Your task to perform on an android device: View the shopping cart on costco.com. Search for logitech g pro on costco.com, select the first entry, add it to the cart, then select checkout. Image 0: 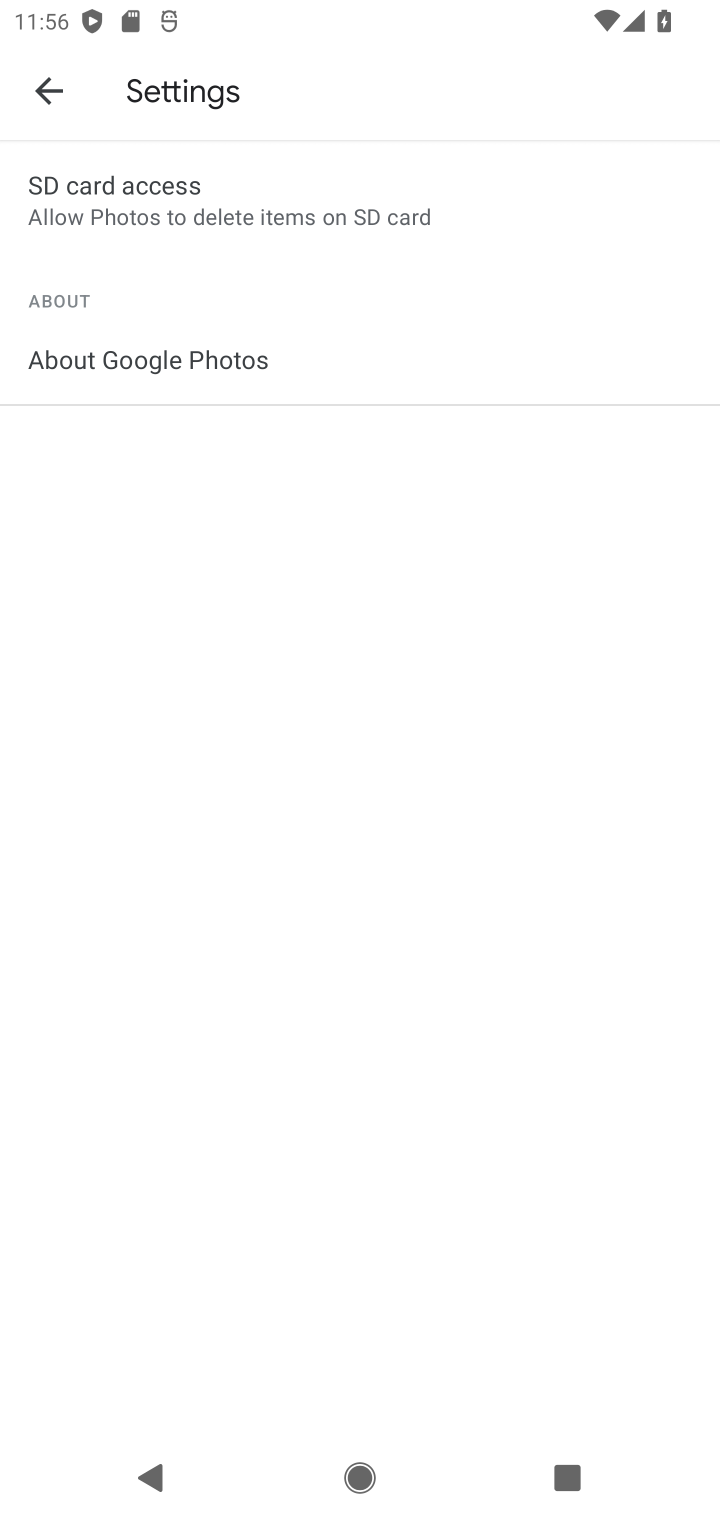
Step 0: press home button
Your task to perform on an android device: View the shopping cart on costco.com. Search for logitech g pro on costco.com, select the first entry, add it to the cart, then select checkout. Image 1: 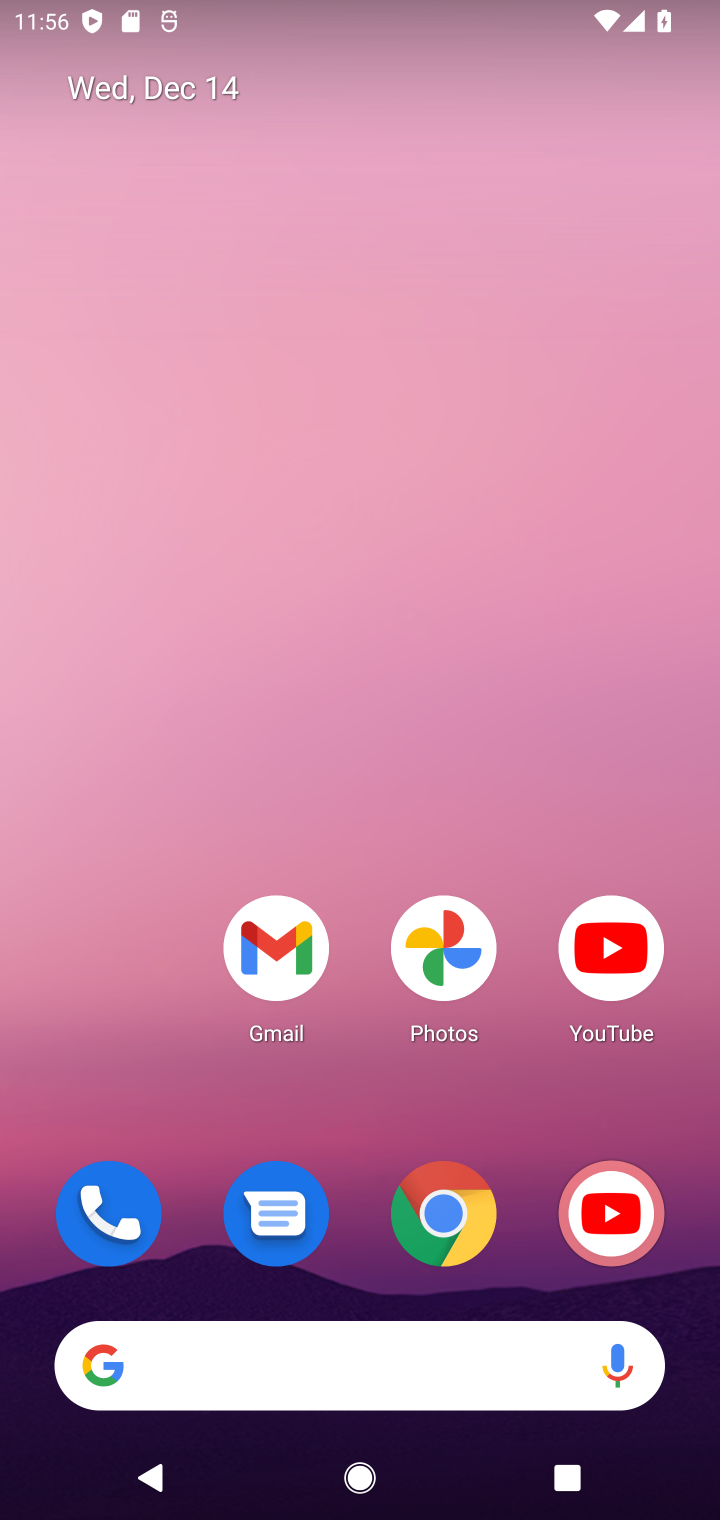
Step 1: click (456, 1211)
Your task to perform on an android device: View the shopping cart on costco.com. Search for logitech g pro on costco.com, select the first entry, add it to the cart, then select checkout. Image 2: 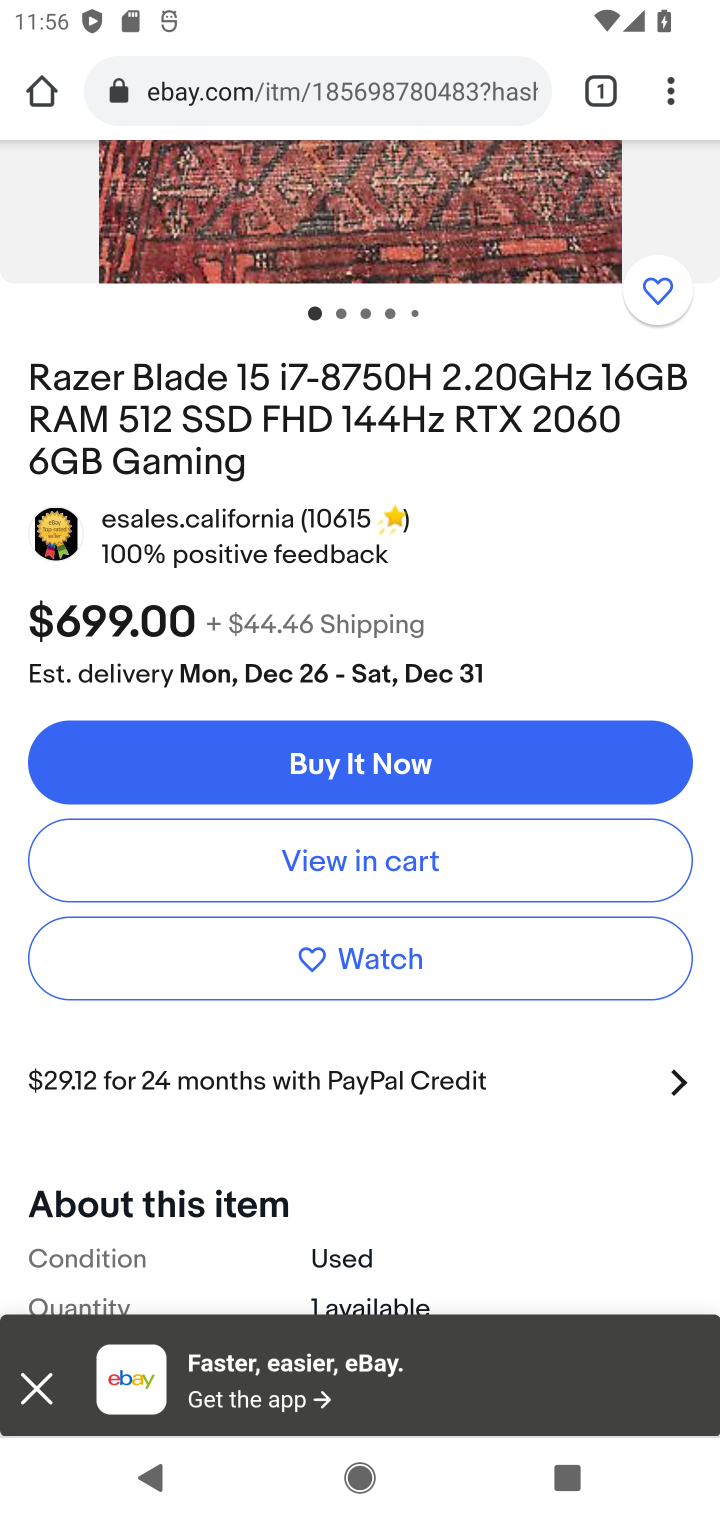
Step 2: click (278, 86)
Your task to perform on an android device: View the shopping cart on costco.com. Search for logitech g pro on costco.com, select the first entry, add it to the cart, then select checkout. Image 3: 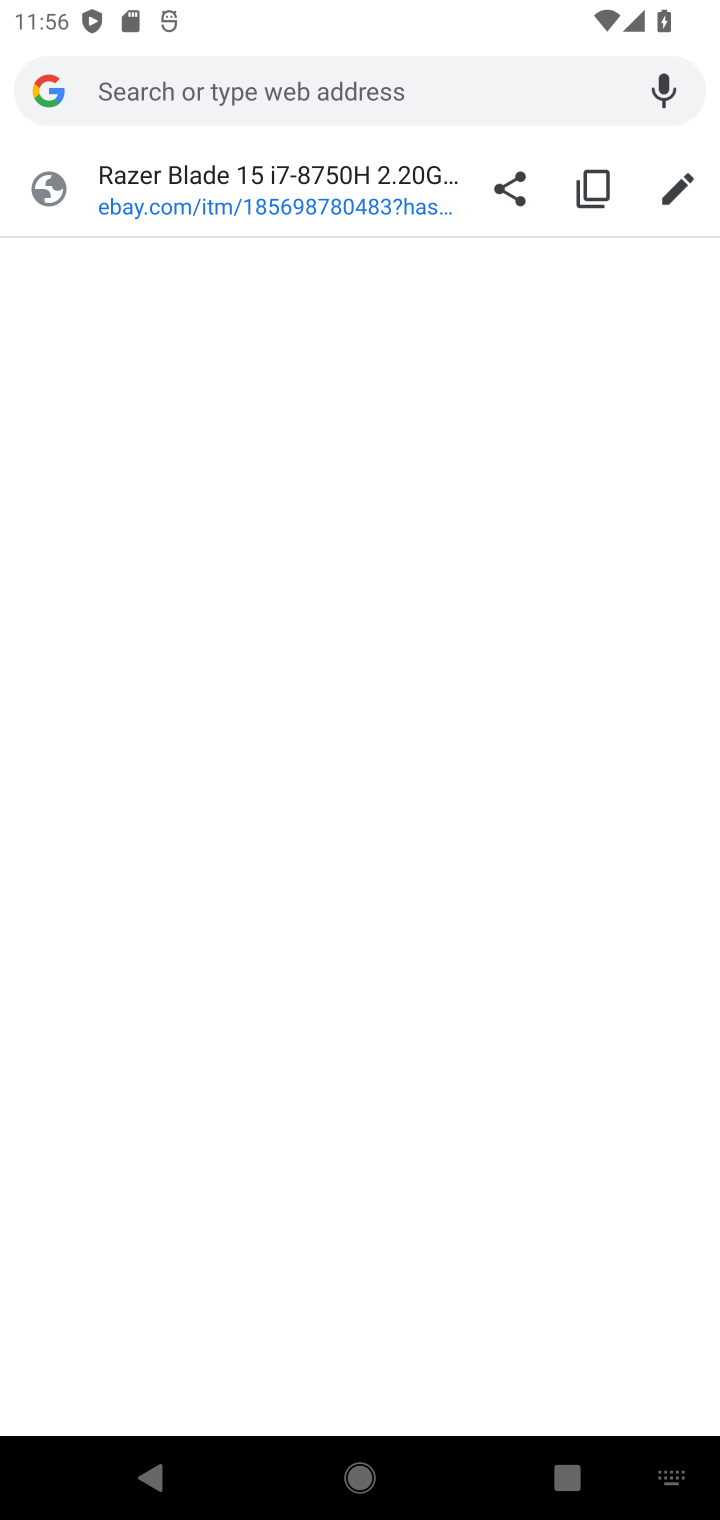
Step 3: type "costco"
Your task to perform on an android device: View the shopping cart on costco.com. Search for logitech g pro on costco.com, select the first entry, add it to the cart, then select checkout. Image 4: 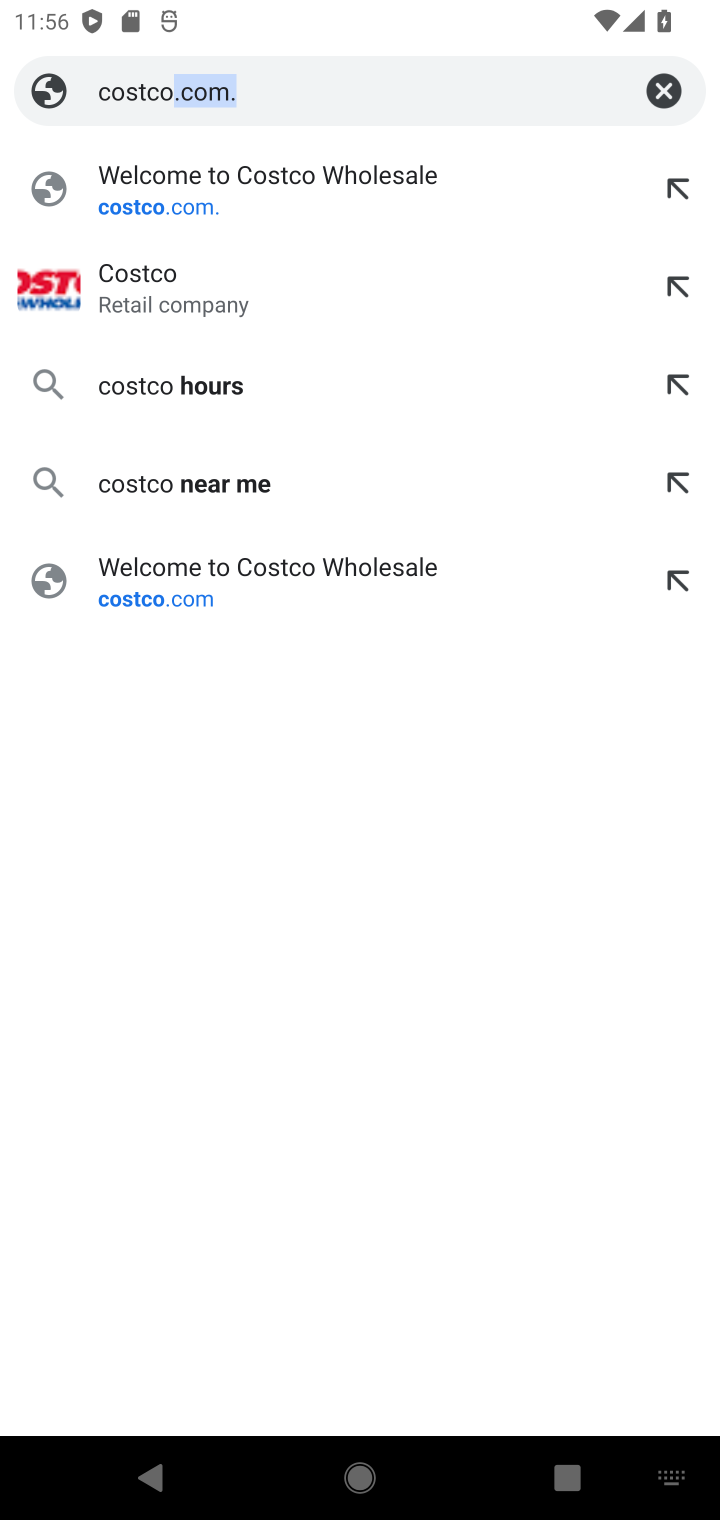
Step 4: click (175, 161)
Your task to perform on an android device: View the shopping cart on costco.com. Search for logitech g pro on costco.com, select the first entry, add it to the cart, then select checkout. Image 5: 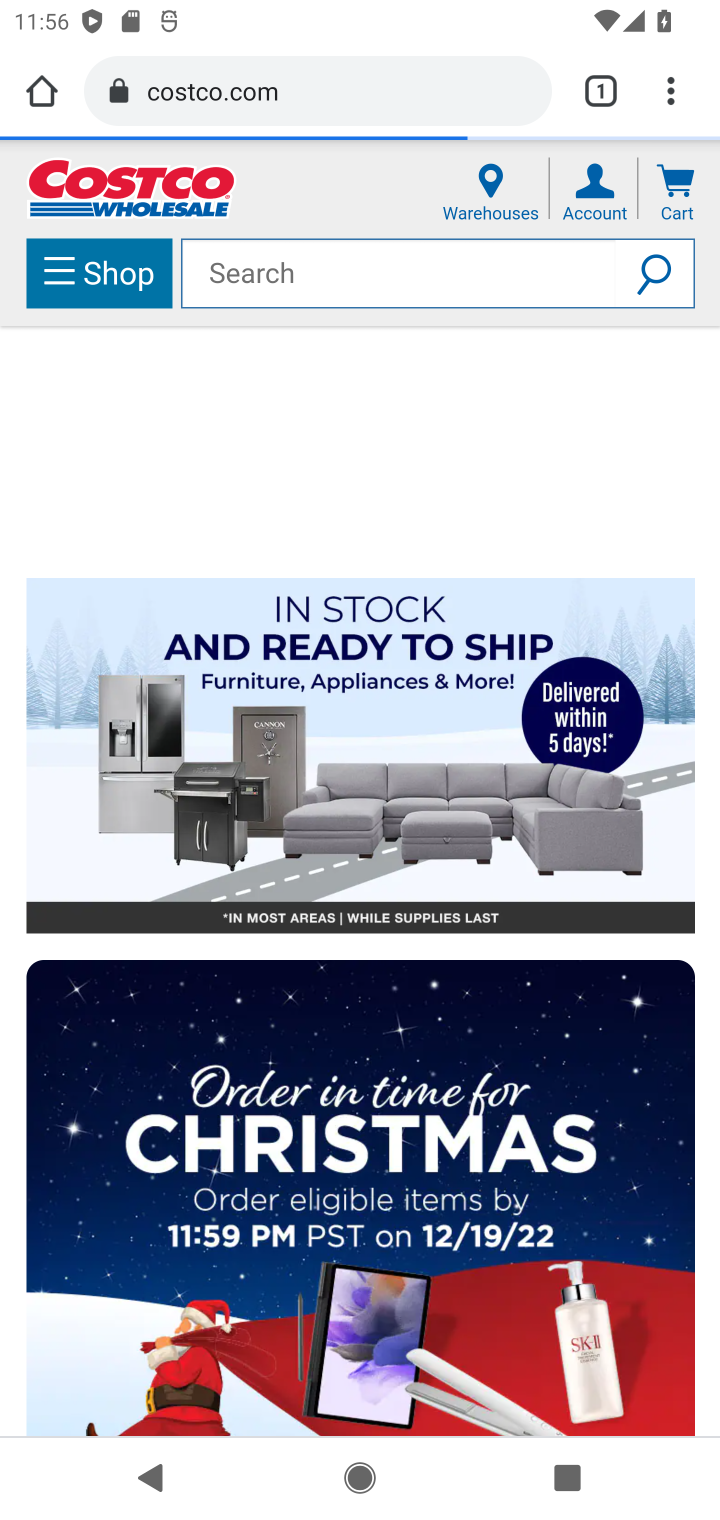
Step 5: click (361, 279)
Your task to perform on an android device: View the shopping cart on costco.com. Search for logitech g pro on costco.com, select the first entry, add it to the cart, then select checkout. Image 6: 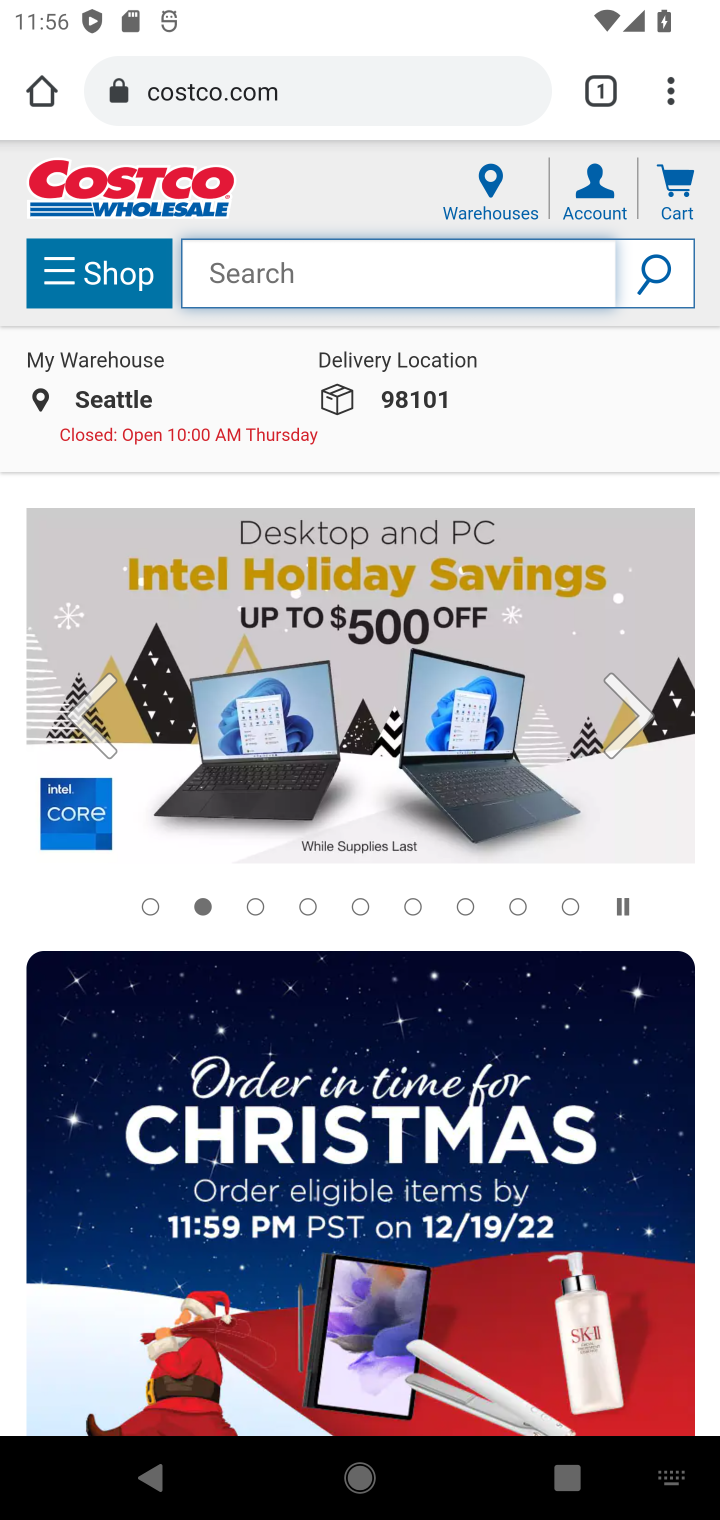
Step 6: type "logitech gpro"
Your task to perform on an android device: View the shopping cart on costco.com. Search for logitech g pro on costco.com, select the first entry, add it to the cart, then select checkout. Image 7: 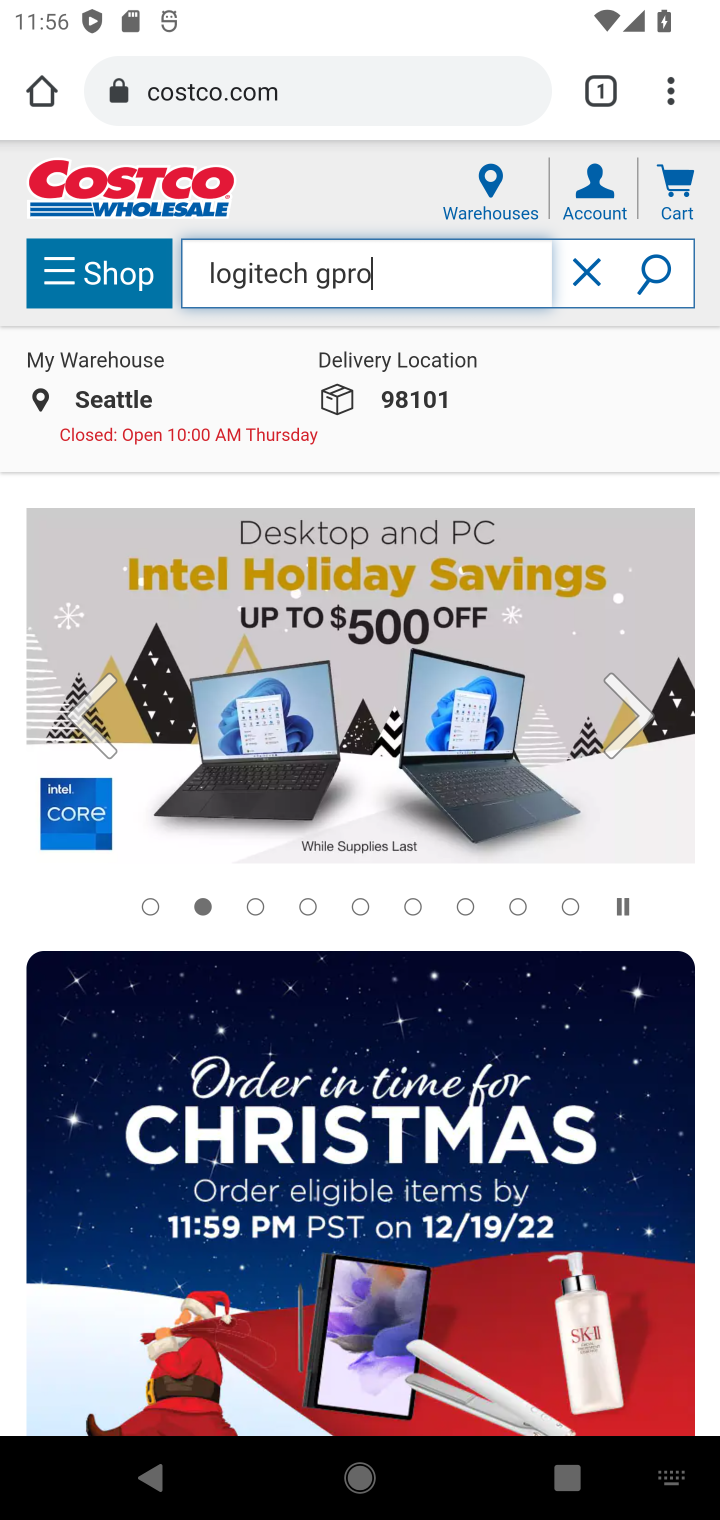
Step 7: click (639, 276)
Your task to perform on an android device: View the shopping cart on costco.com. Search for logitech g pro on costco.com, select the first entry, add it to the cart, then select checkout. Image 8: 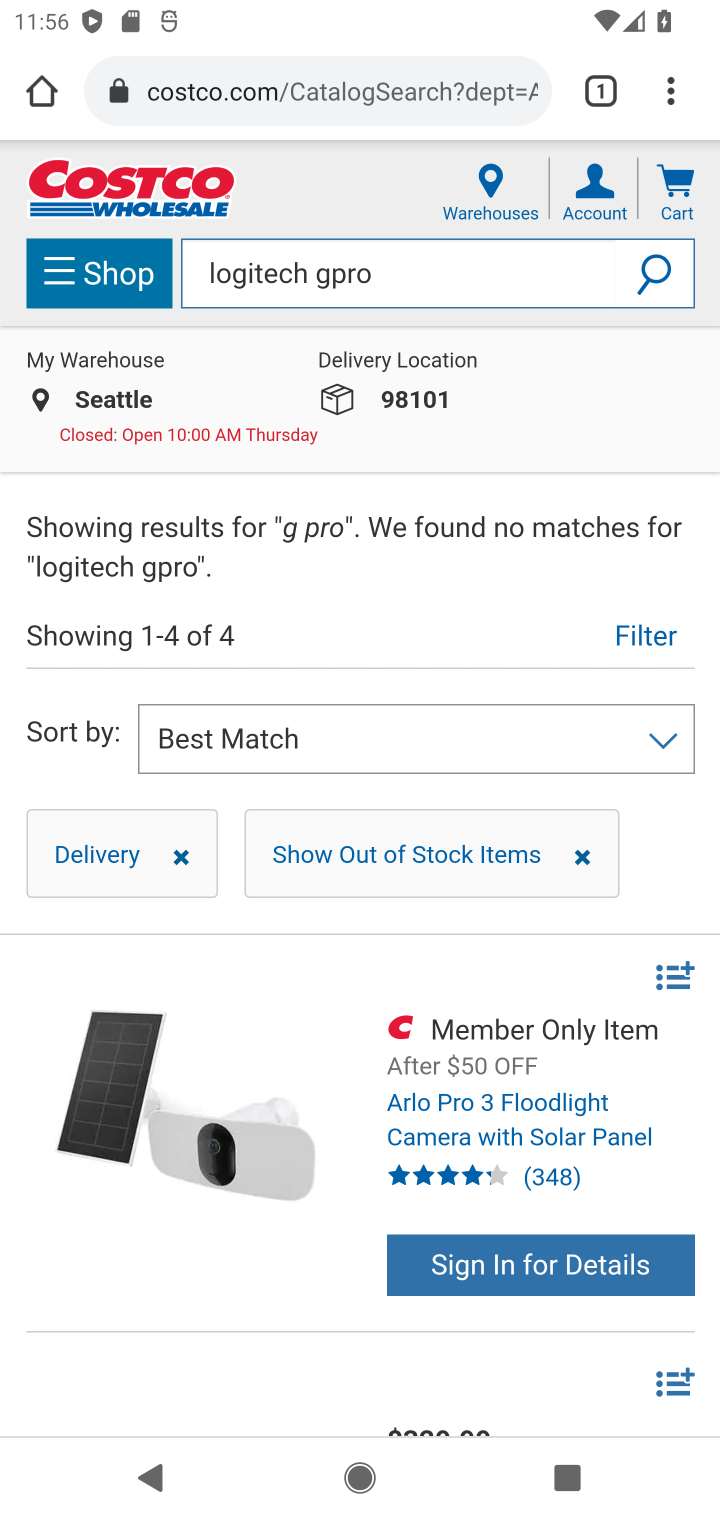
Step 8: task complete